Your task to perform on an android device: clear history in the chrome app Image 0: 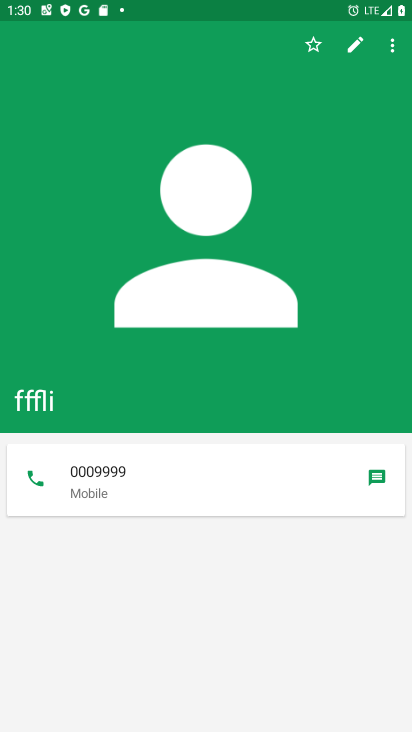
Step 0: press home button
Your task to perform on an android device: clear history in the chrome app Image 1: 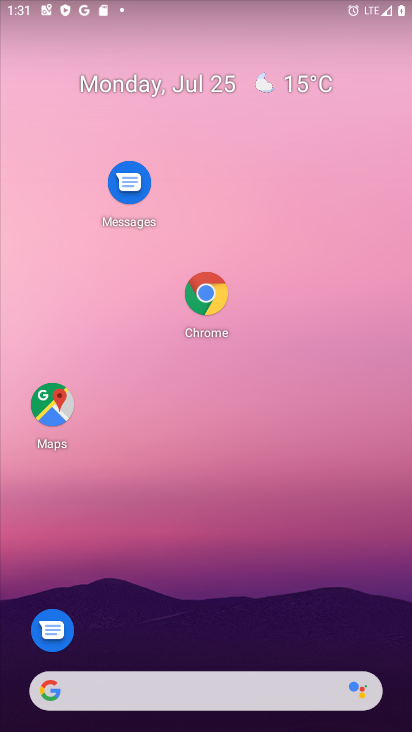
Step 1: click (225, 287)
Your task to perform on an android device: clear history in the chrome app Image 2: 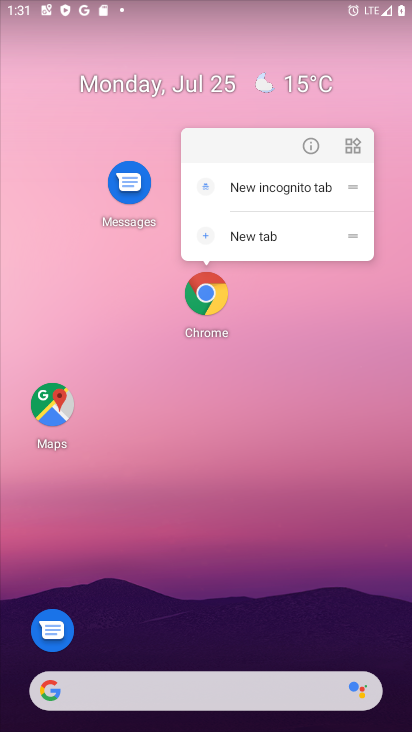
Step 2: click (225, 287)
Your task to perform on an android device: clear history in the chrome app Image 3: 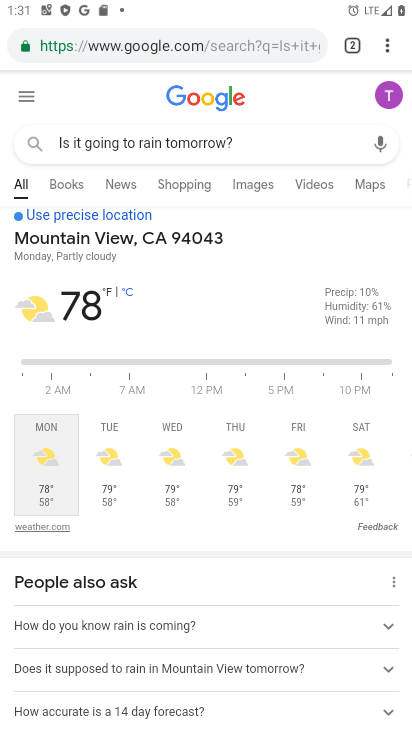
Step 3: drag from (387, 34) to (253, 308)
Your task to perform on an android device: clear history in the chrome app Image 4: 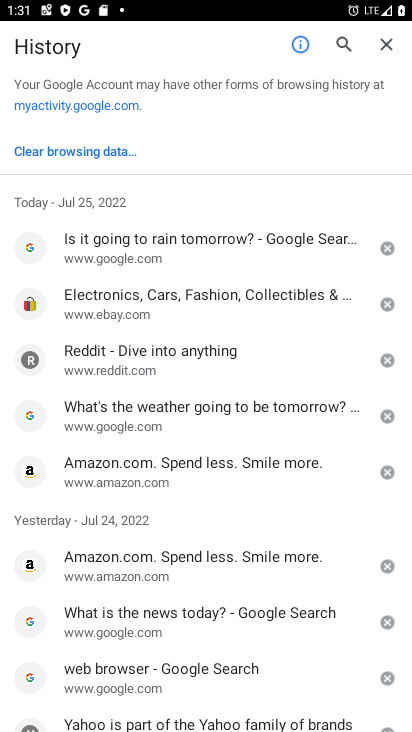
Step 4: click (83, 153)
Your task to perform on an android device: clear history in the chrome app Image 5: 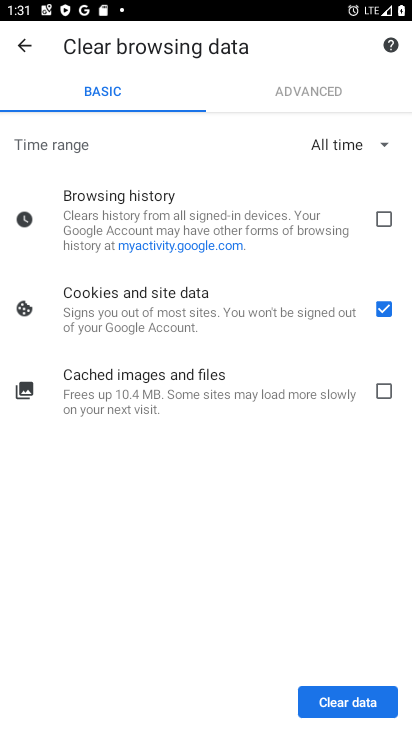
Step 5: click (402, 234)
Your task to perform on an android device: clear history in the chrome app Image 6: 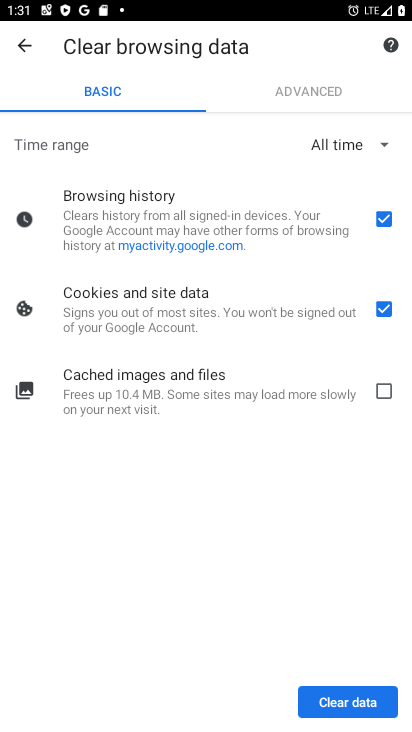
Step 6: click (338, 706)
Your task to perform on an android device: clear history in the chrome app Image 7: 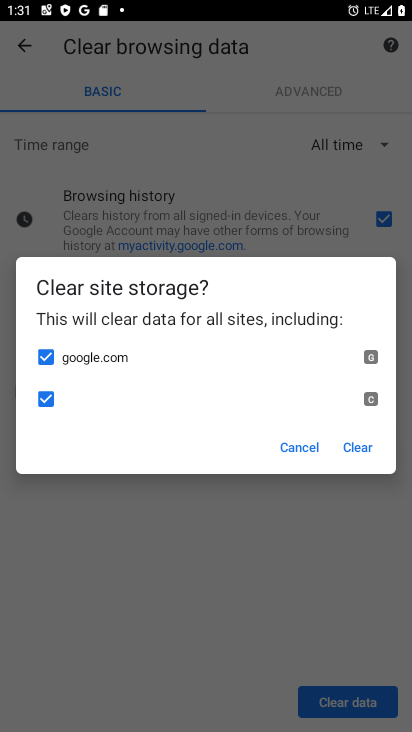
Step 7: click (358, 456)
Your task to perform on an android device: clear history in the chrome app Image 8: 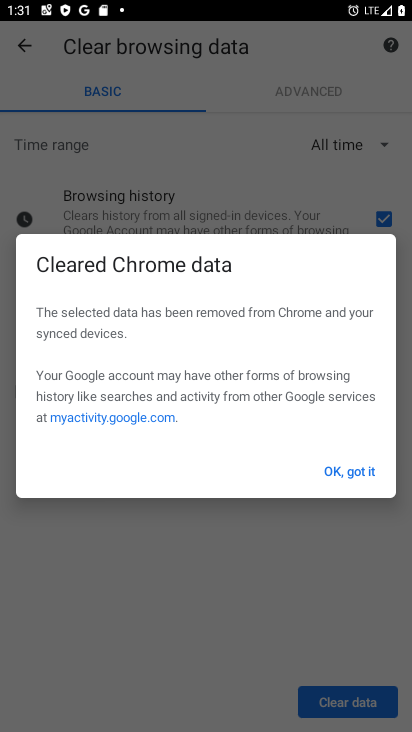
Step 8: click (335, 461)
Your task to perform on an android device: clear history in the chrome app Image 9: 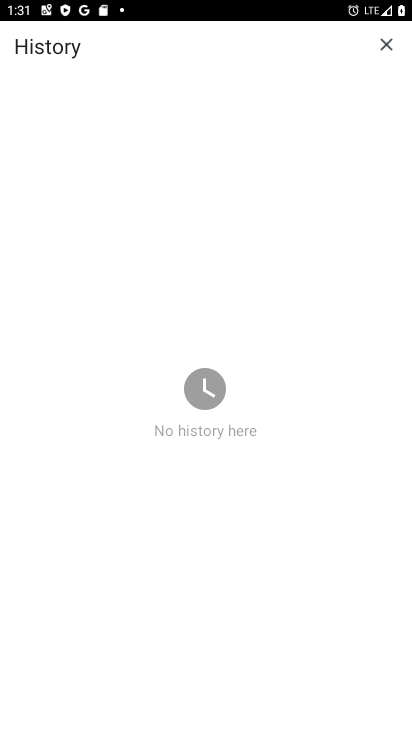
Step 9: task complete